Your task to perform on an android device: move an email to a new category in the gmail app Image 0: 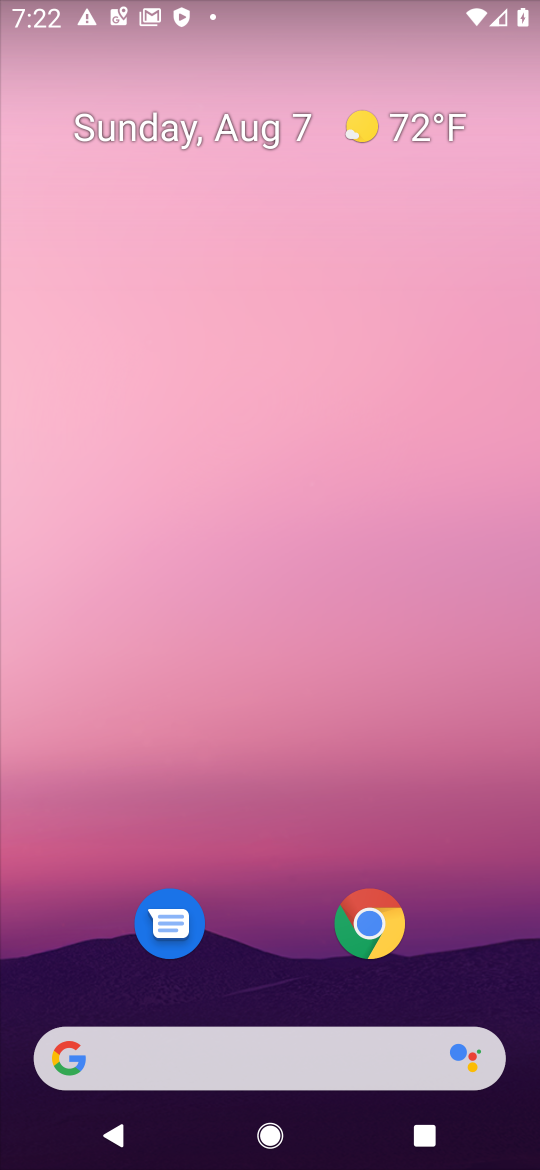
Step 0: drag from (464, 978) to (368, 34)
Your task to perform on an android device: move an email to a new category in the gmail app Image 1: 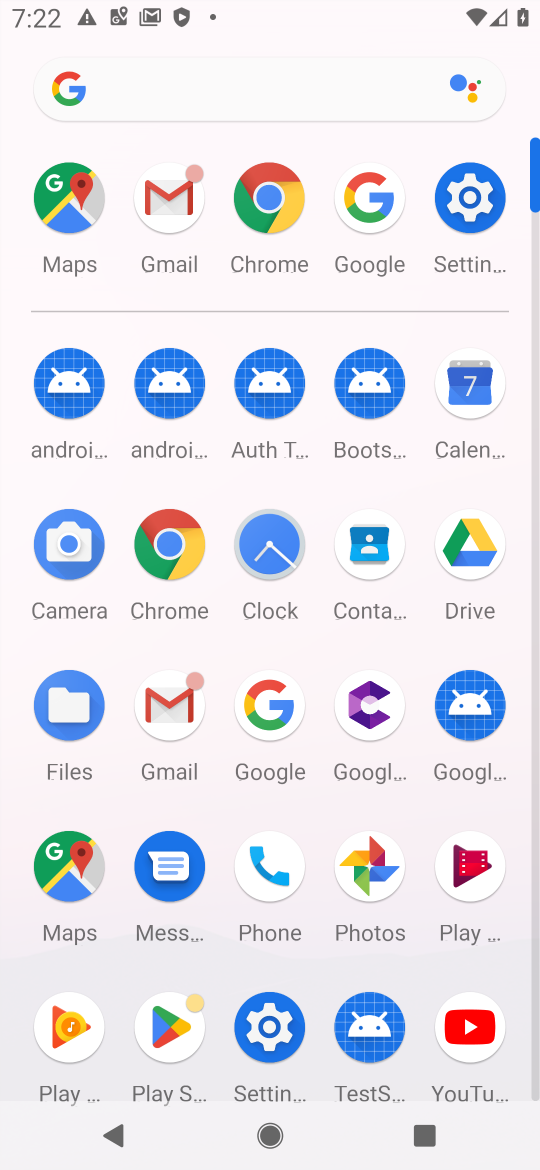
Step 1: click (174, 737)
Your task to perform on an android device: move an email to a new category in the gmail app Image 2: 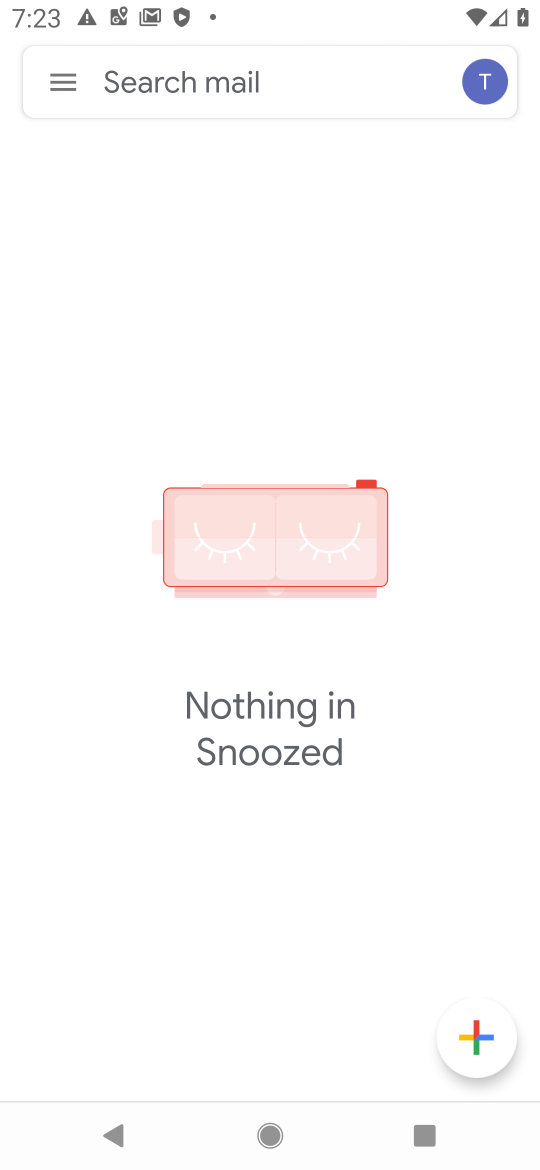
Step 2: click (38, 75)
Your task to perform on an android device: move an email to a new category in the gmail app Image 3: 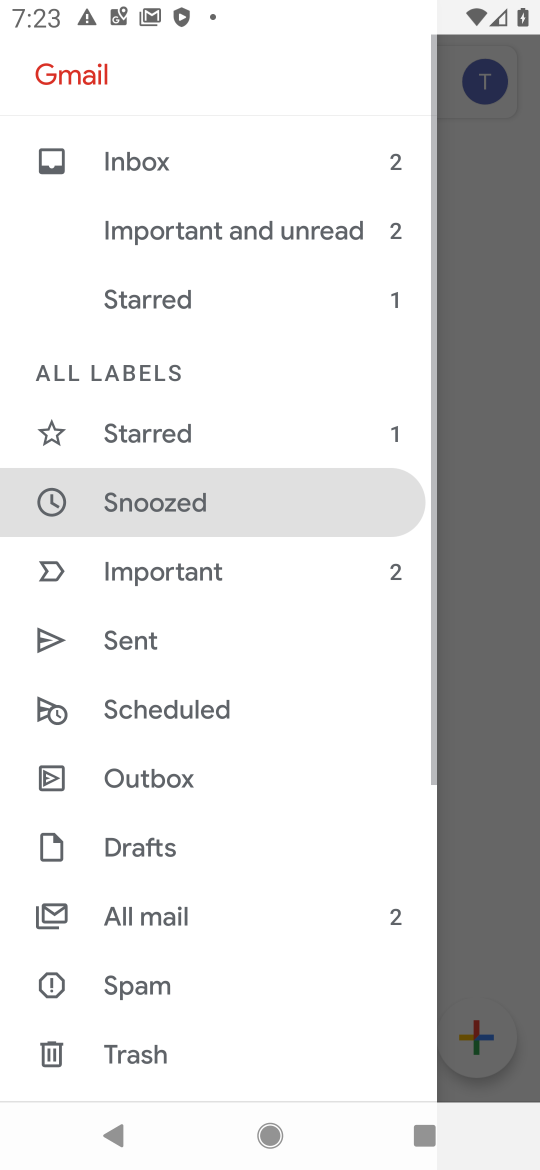
Step 3: click (234, 165)
Your task to perform on an android device: move an email to a new category in the gmail app Image 4: 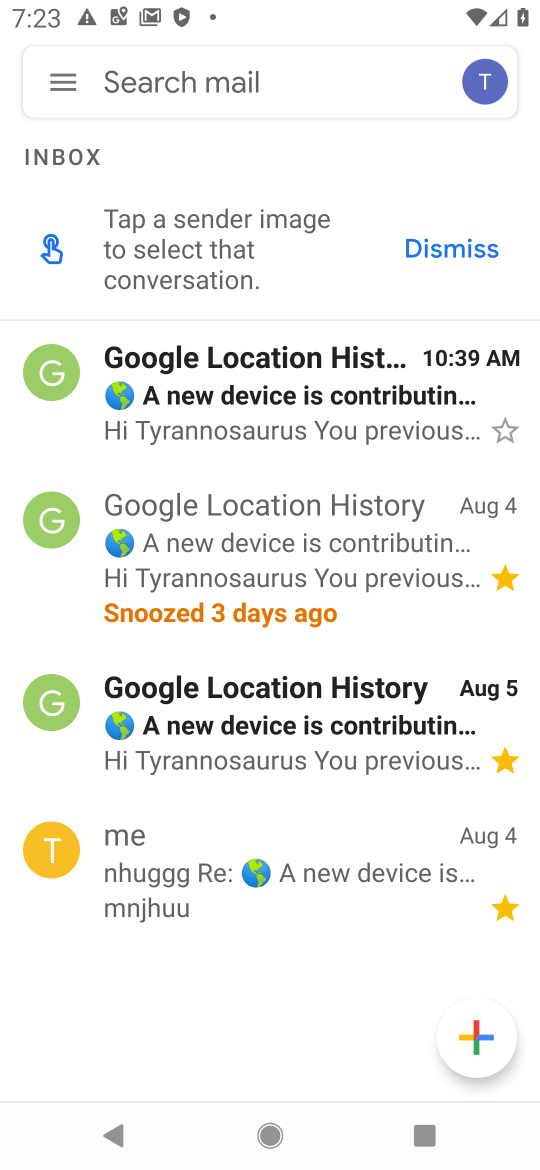
Step 4: task complete